Your task to perform on an android device: see sites visited before in the chrome app Image 0: 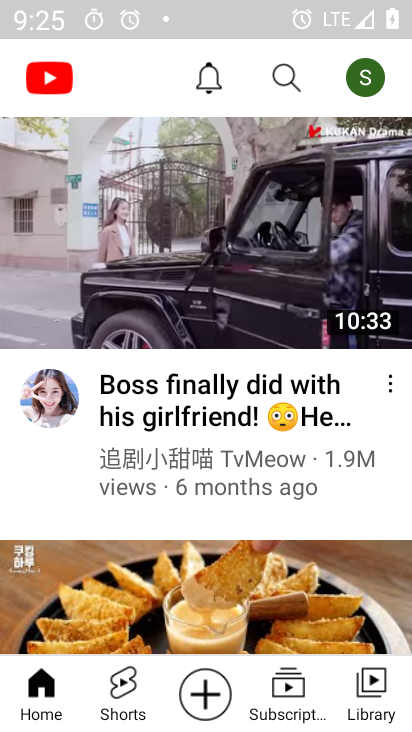
Step 0: press home button
Your task to perform on an android device: see sites visited before in the chrome app Image 1: 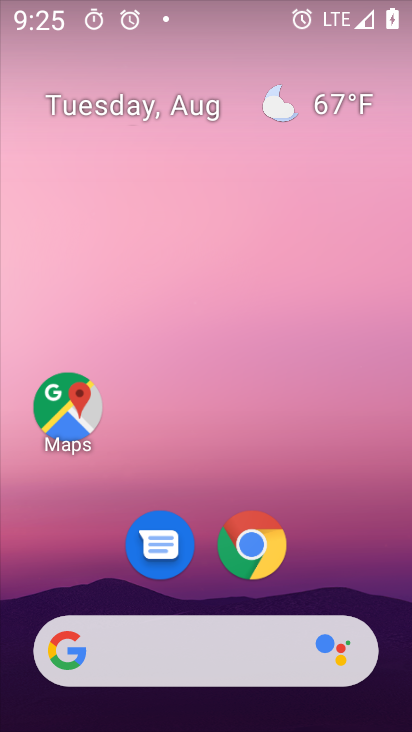
Step 1: drag from (336, 551) to (197, 3)
Your task to perform on an android device: see sites visited before in the chrome app Image 2: 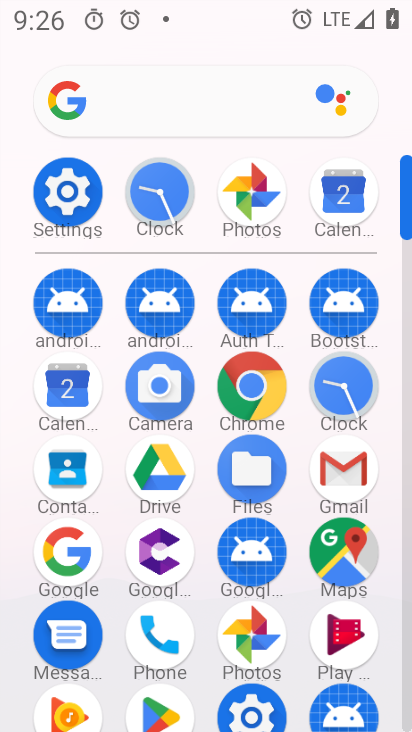
Step 2: click (264, 401)
Your task to perform on an android device: see sites visited before in the chrome app Image 3: 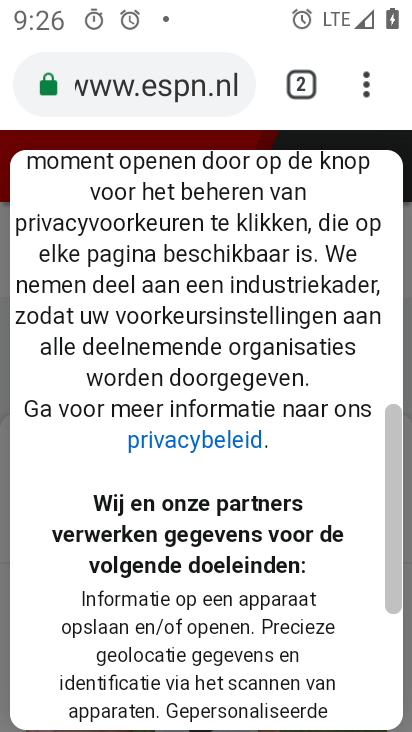
Step 3: click (357, 71)
Your task to perform on an android device: see sites visited before in the chrome app Image 4: 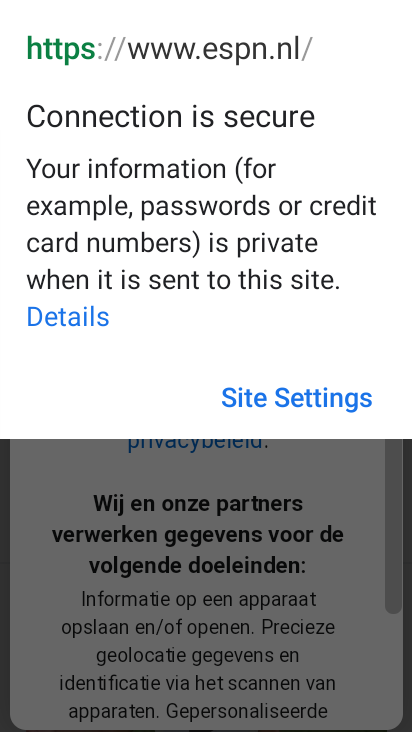
Step 4: click (365, 489)
Your task to perform on an android device: see sites visited before in the chrome app Image 5: 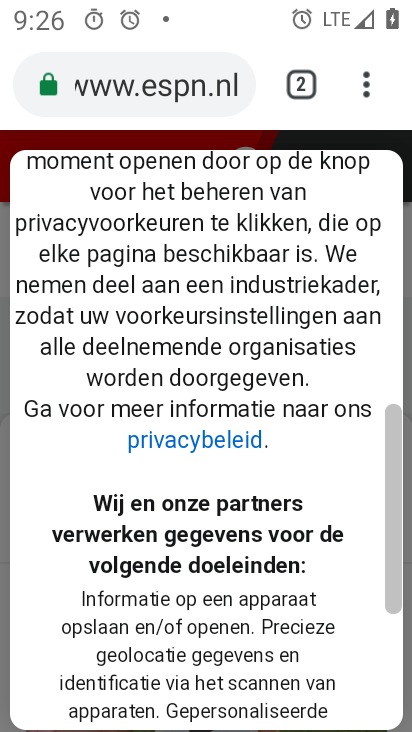
Step 5: click (364, 82)
Your task to perform on an android device: see sites visited before in the chrome app Image 6: 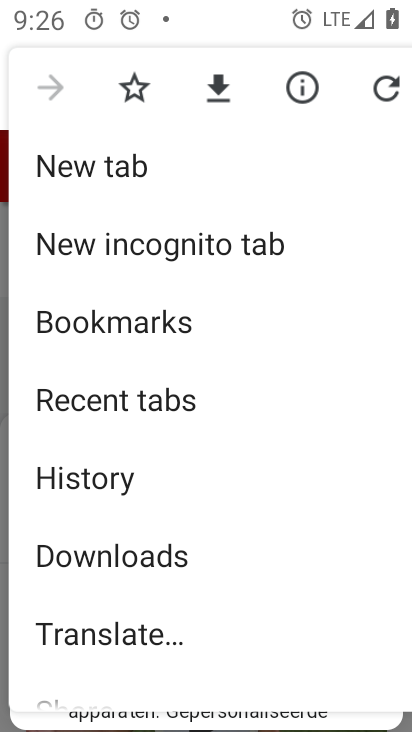
Step 6: click (117, 477)
Your task to perform on an android device: see sites visited before in the chrome app Image 7: 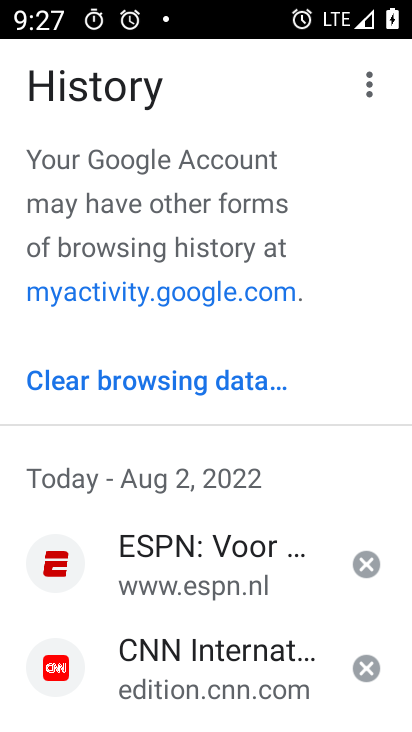
Step 7: task complete